Your task to perform on an android device: Open Android settings Image 0: 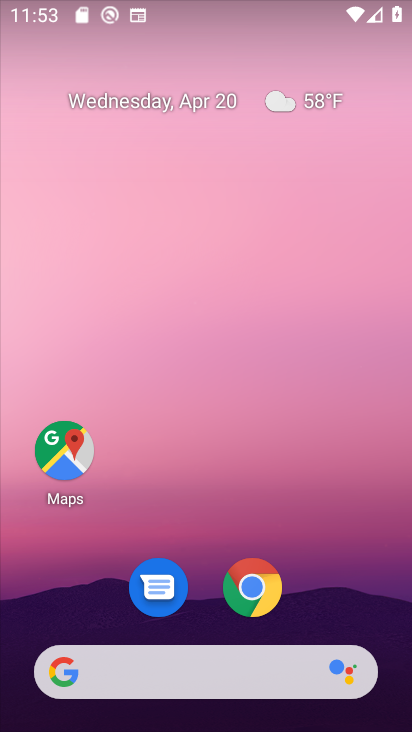
Step 0: drag from (159, 529) to (173, 193)
Your task to perform on an android device: Open Android settings Image 1: 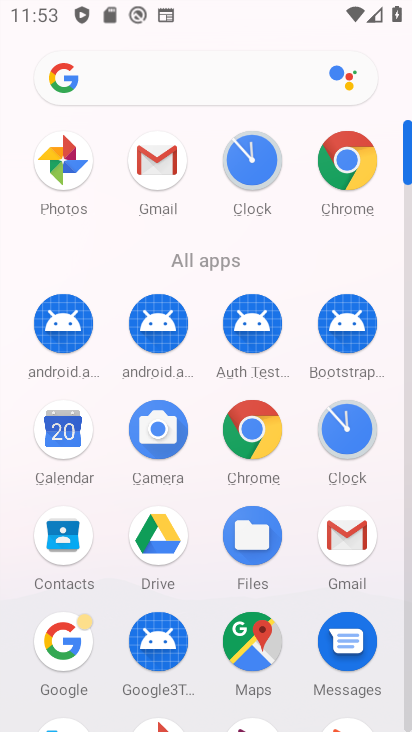
Step 1: drag from (224, 497) to (203, 289)
Your task to perform on an android device: Open Android settings Image 2: 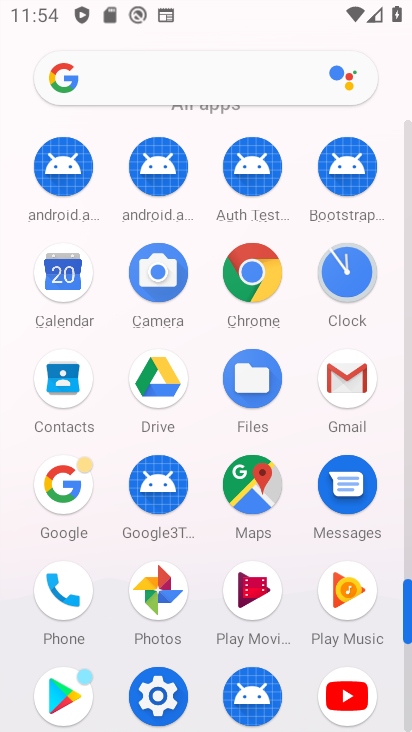
Step 2: click (169, 686)
Your task to perform on an android device: Open Android settings Image 3: 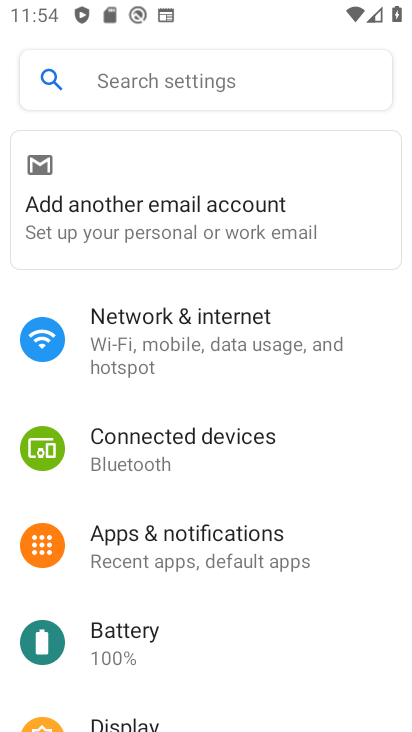
Step 3: drag from (170, 541) to (275, 7)
Your task to perform on an android device: Open Android settings Image 4: 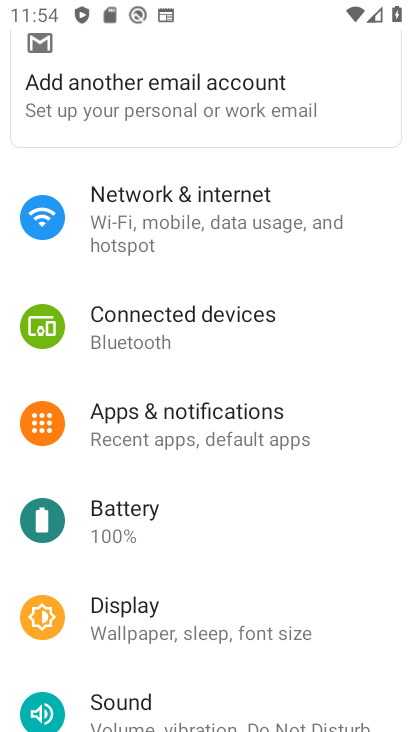
Step 4: drag from (212, 613) to (295, 6)
Your task to perform on an android device: Open Android settings Image 5: 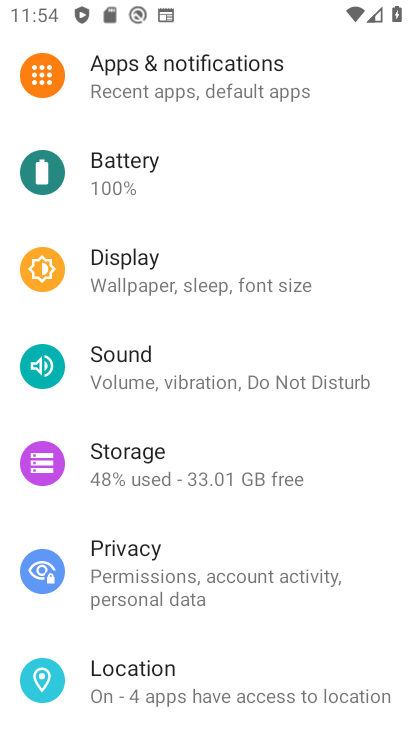
Step 5: drag from (118, 690) to (170, 80)
Your task to perform on an android device: Open Android settings Image 6: 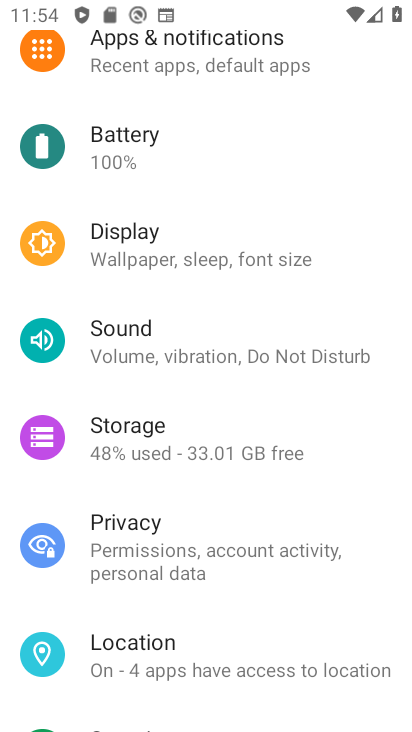
Step 6: drag from (207, 633) to (281, 82)
Your task to perform on an android device: Open Android settings Image 7: 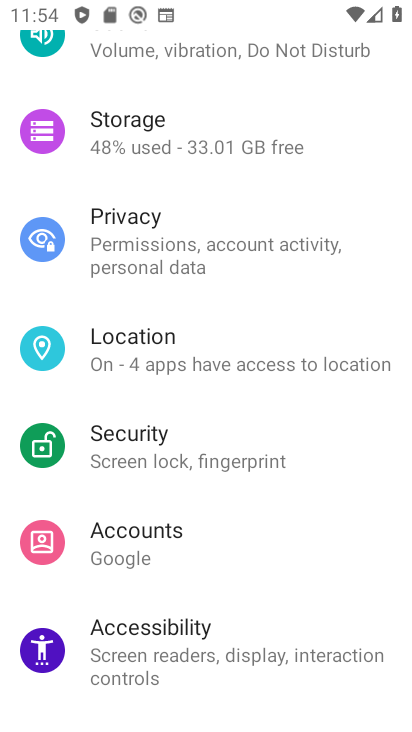
Step 7: drag from (188, 672) to (195, 245)
Your task to perform on an android device: Open Android settings Image 8: 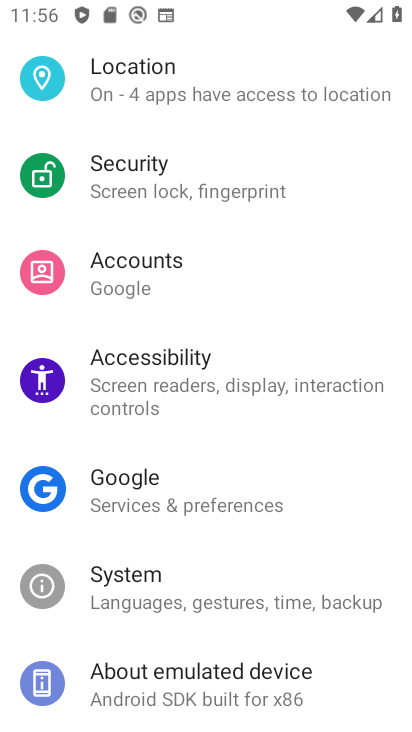
Step 8: click (206, 664)
Your task to perform on an android device: Open Android settings Image 9: 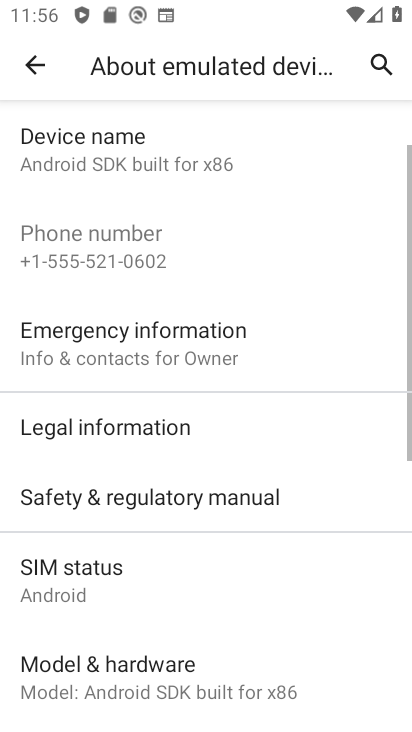
Step 9: task complete